Your task to perform on an android device: Go to CNN.com Image 0: 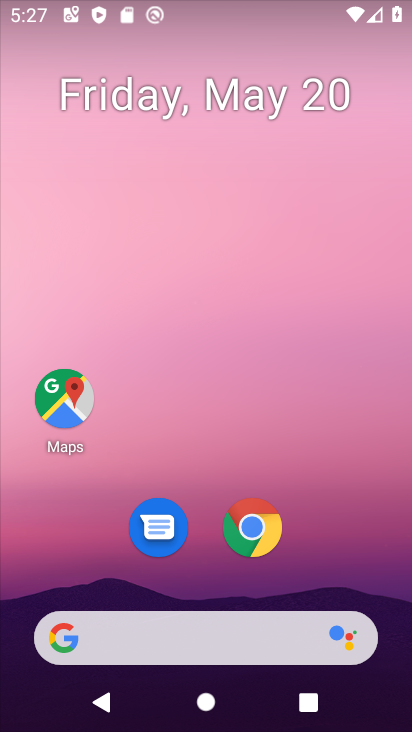
Step 0: drag from (267, 609) to (212, 11)
Your task to perform on an android device: Go to CNN.com Image 1: 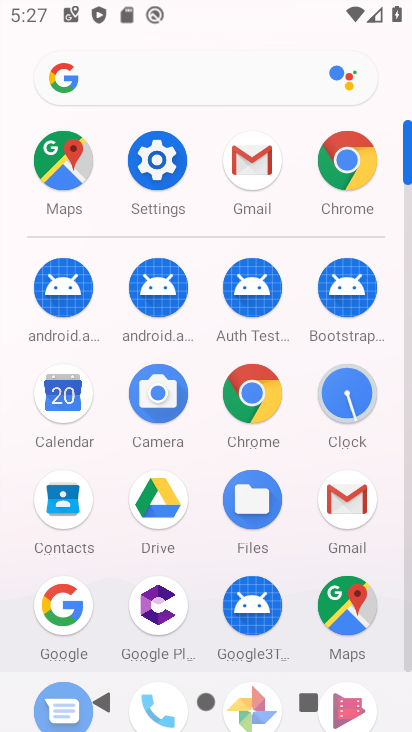
Step 1: click (250, 380)
Your task to perform on an android device: Go to CNN.com Image 2: 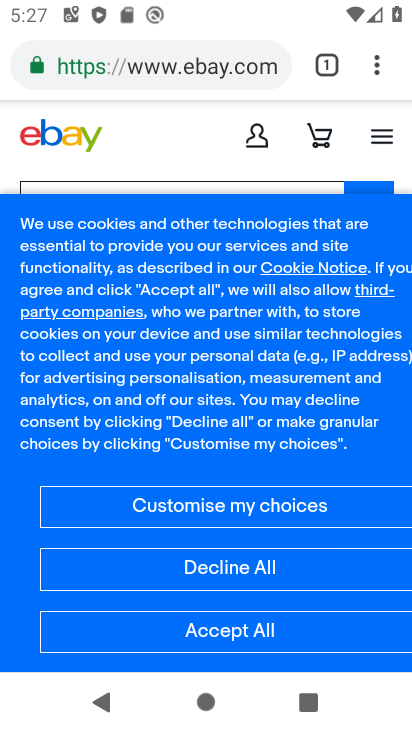
Step 2: type "cnn.com"
Your task to perform on an android device: Go to CNN.com Image 3: 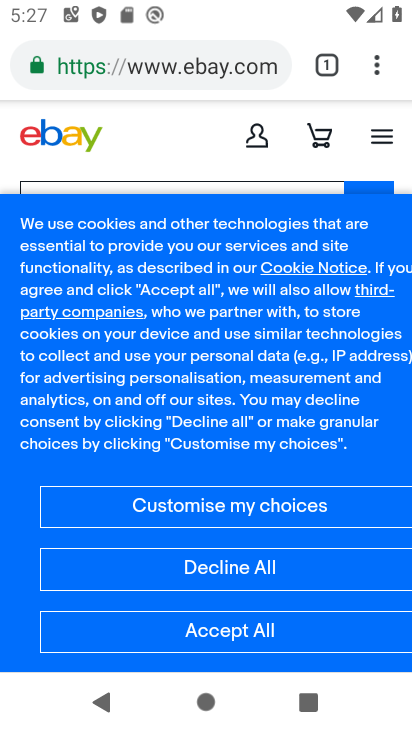
Step 3: task complete